Your task to perform on an android device: Open sound settings Image 0: 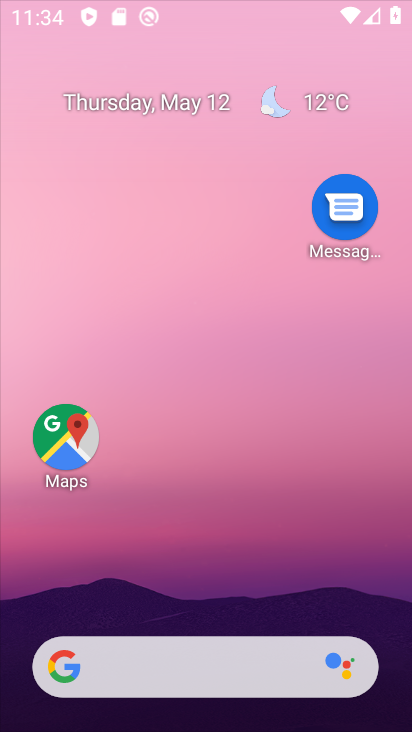
Step 0: press home button
Your task to perform on an android device: Open sound settings Image 1: 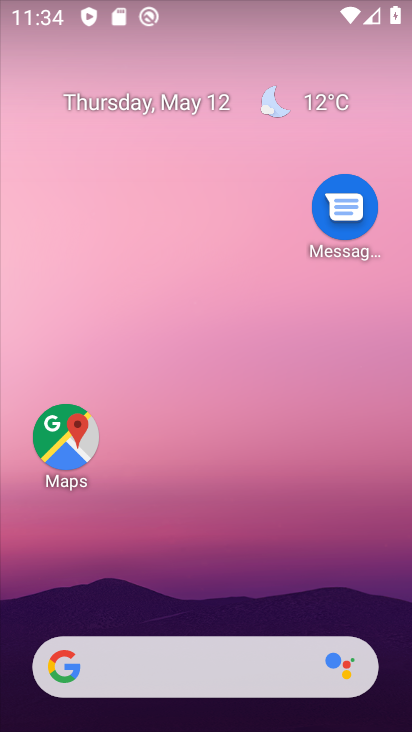
Step 1: drag from (243, 574) to (306, 14)
Your task to perform on an android device: Open sound settings Image 2: 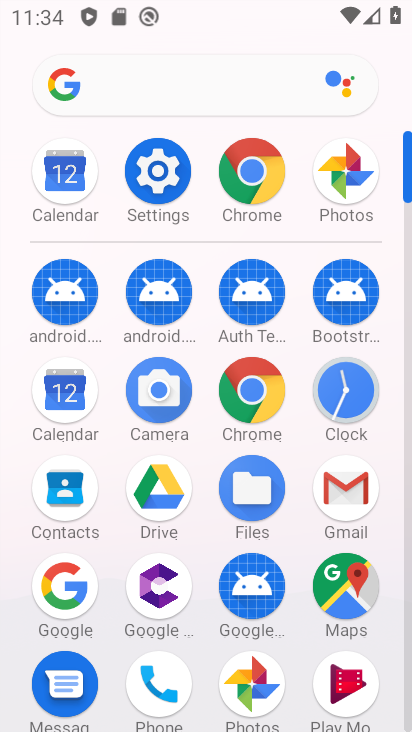
Step 2: click (158, 157)
Your task to perform on an android device: Open sound settings Image 3: 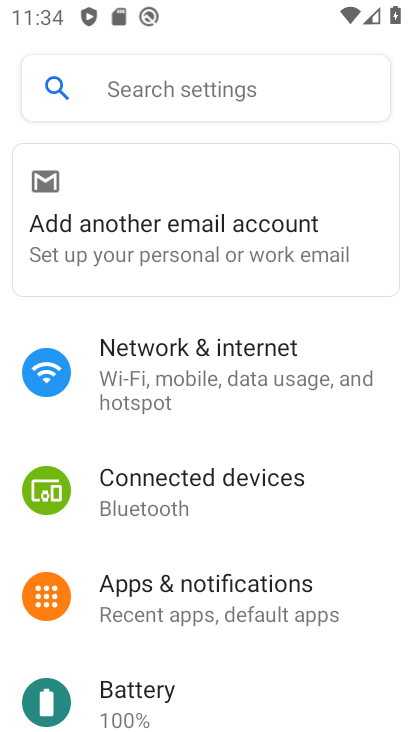
Step 3: drag from (153, 627) to (340, 18)
Your task to perform on an android device: Open sound settings Image 4: 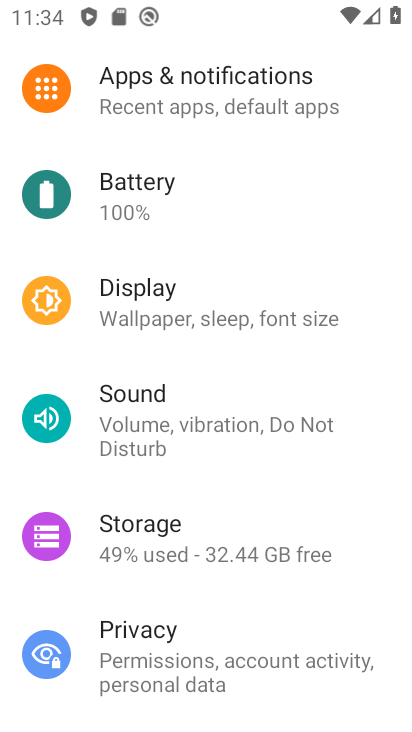
Step 4: click (237, 435)
Your task to perform on an android device: Open sound settings Image 5: 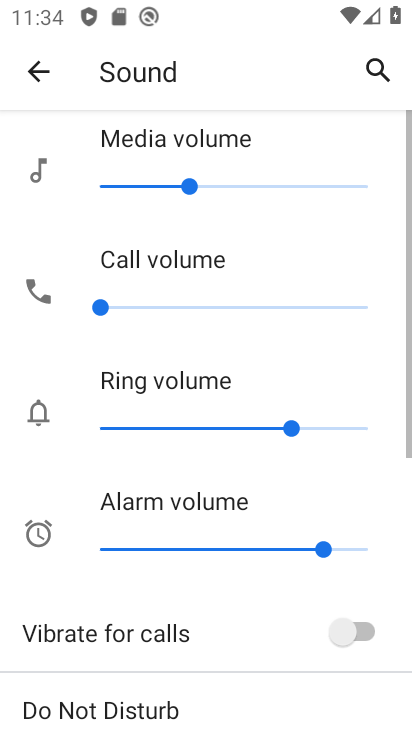
Step 5: task complete